Your task to perform on an android device: Set the phone to "Do not disturb". Image 0: 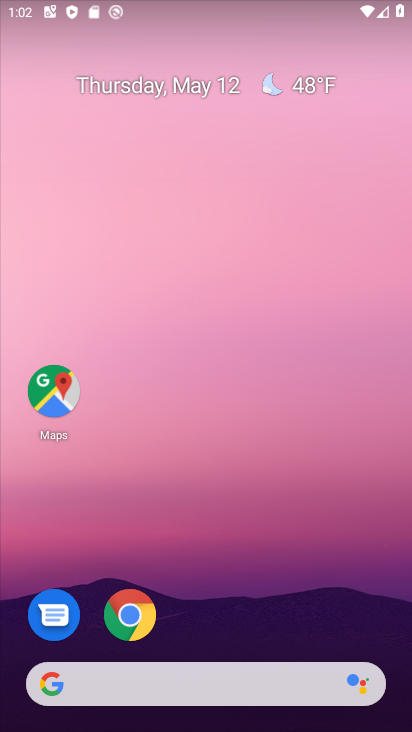
Step 0: drag from (206, 680) to (323, 0)
Your task to perform on an android device: Set the phone to "Do not disturb". Image 1: 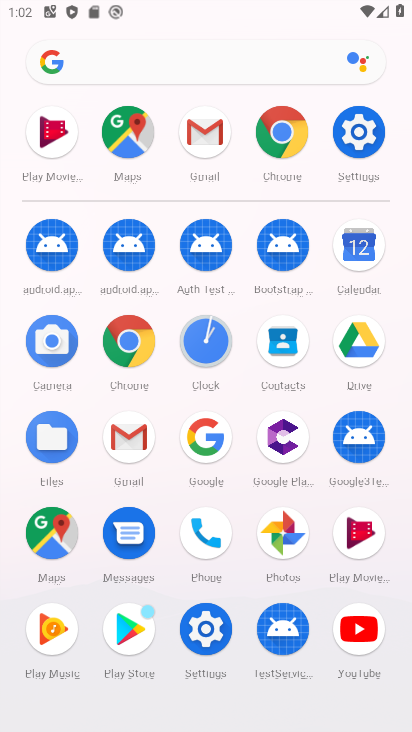
Step 1: click (358, 137)
Your task to perform on an android device: Set the phone to "Do not disturb". Image 2: 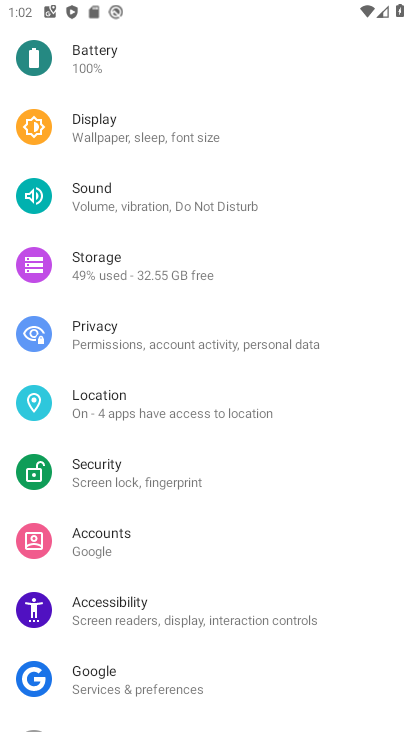
Step 2: click (113, 205)
Your task to perform on an android device: Set the phone to "Do not disturb". Image 3: 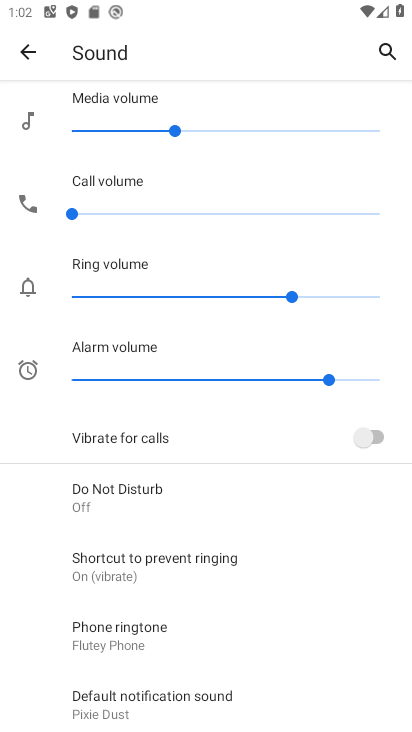
Step 3: click (146, 510)
Your task to perform on an android device: Set the phone to "Do not disturb". Image 4: 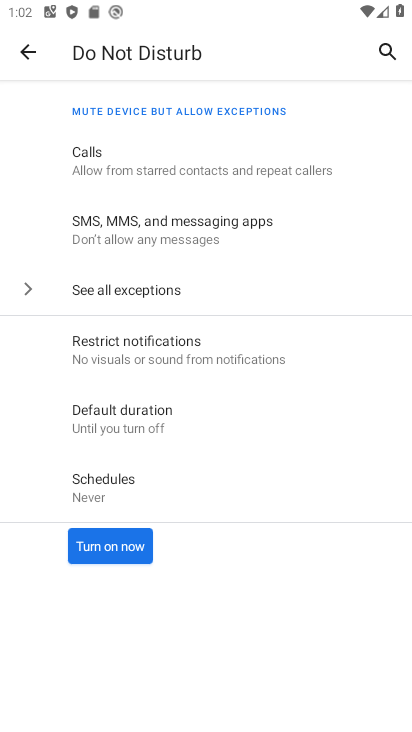
Step 4: click (125, 548)
Your task to perform on an android device: Set the phone to "Do not disturb". Image 5: 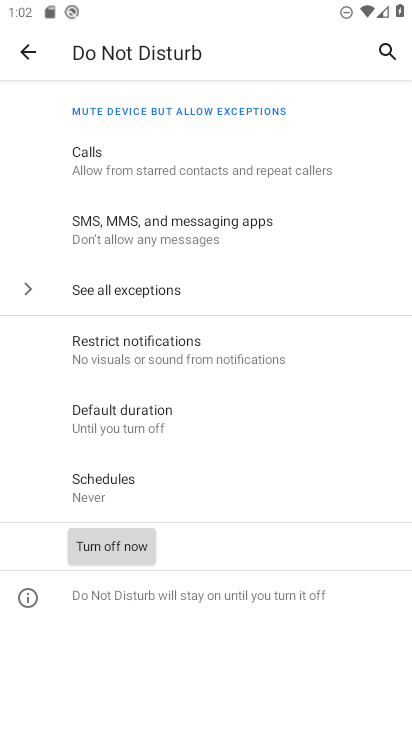
Step 5: task complete